Your task to perform on an android device: check android version Image 0: 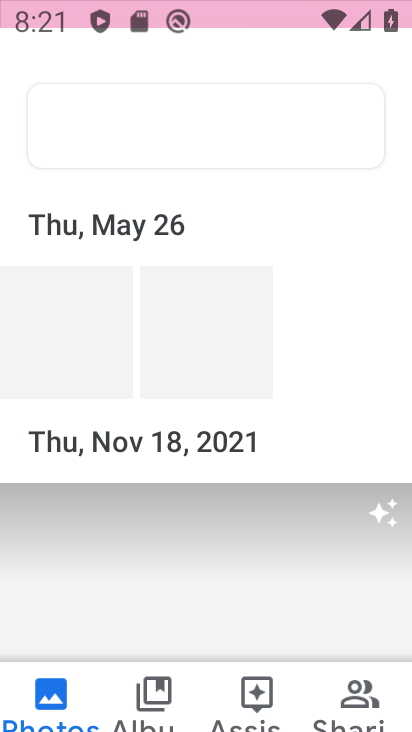
Step 0: press home button
Your task to perform on an android device: check android version Image 1: 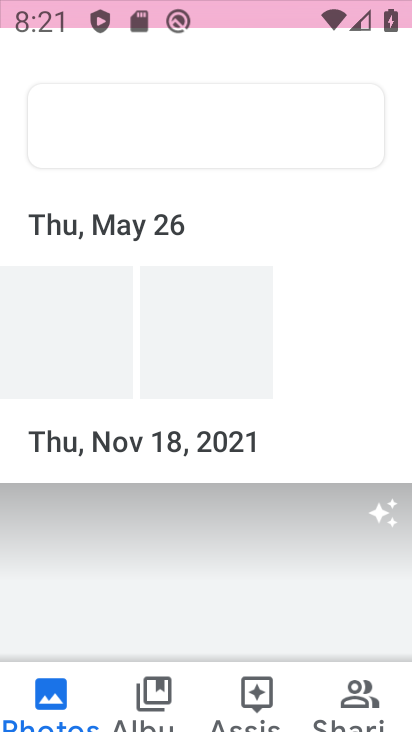
Step 1: click (225, 44)
Your task to perform on an android device: check android version Image 2: 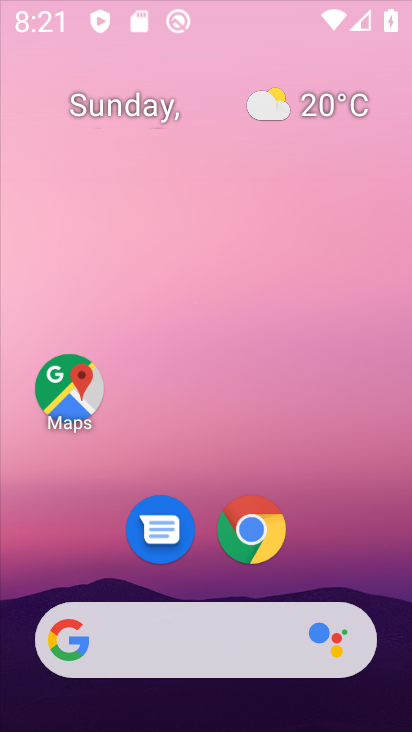
Step 2: press home button
Your task to perform on an android device: check android version Image 3: 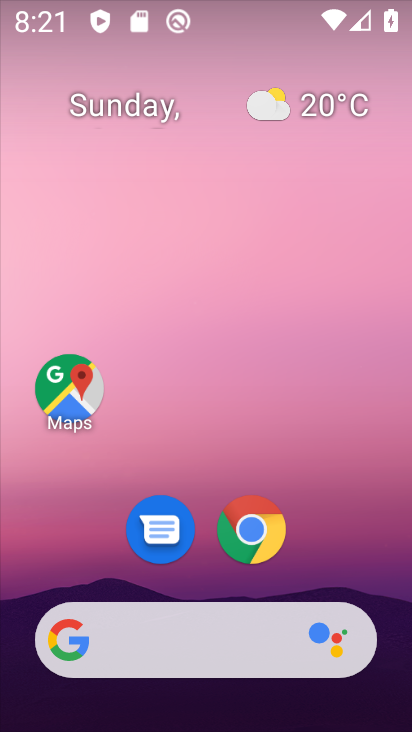
Step 3: drag from (202, 565) to (213, 10)
Your task to perform on an android device: check android version Image 4: 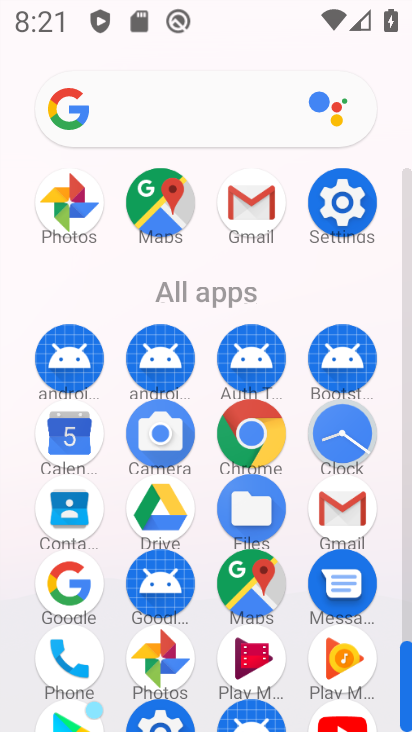
Step 4: click (341, 199)
Your task to perform on an android device: check android version Image 5: 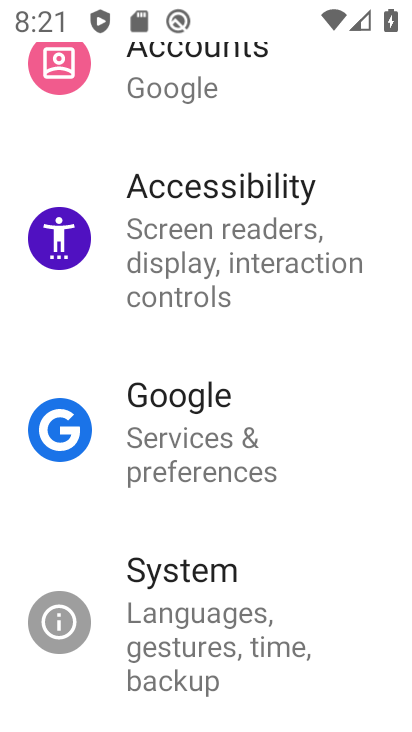
Step 5: drag from (214, 250) to (214, 40)
Your task to perform on an android device: check android version Image 6: 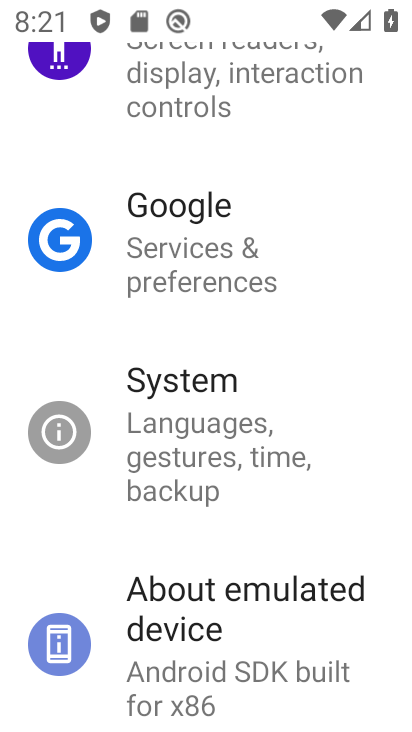
Step 6: drag from (232, 202) to (227, 88)
Your task to perform on an android device: check android version Image 7: 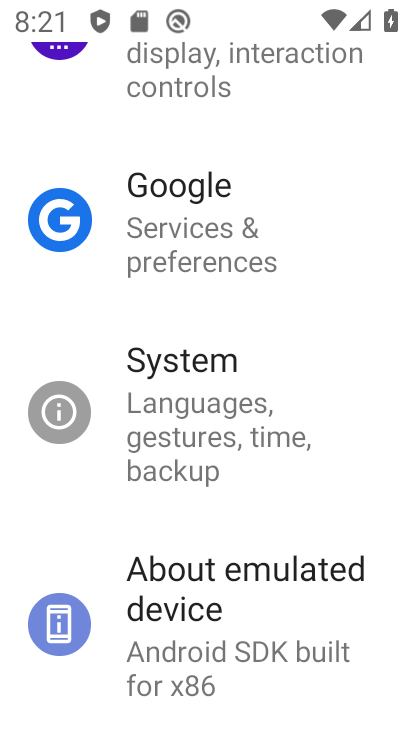
Step 7: click (244, 615)
Your task to perform on an android device: check android version Image 8: 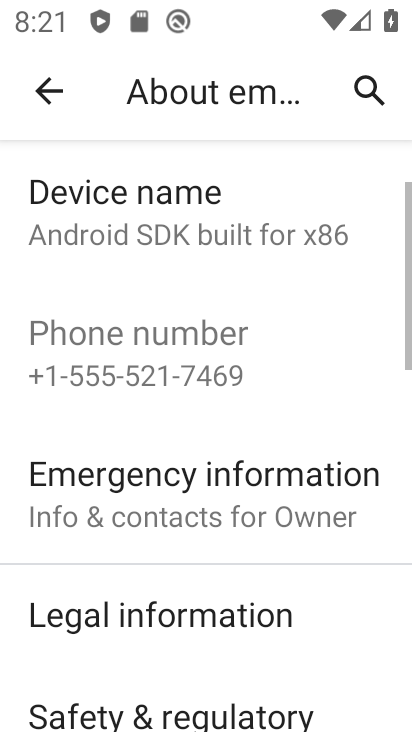
Step 8: drag from (188, 676) to (166, 68)
Your task to perform on an android device: check android version Image 9: 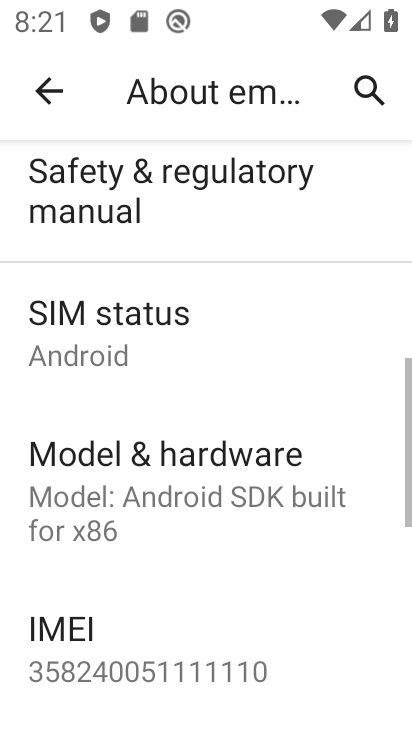
Step 9: drag from (198, 639) to (182, 150)
Your task to perform on an android device: check android version Image 10: 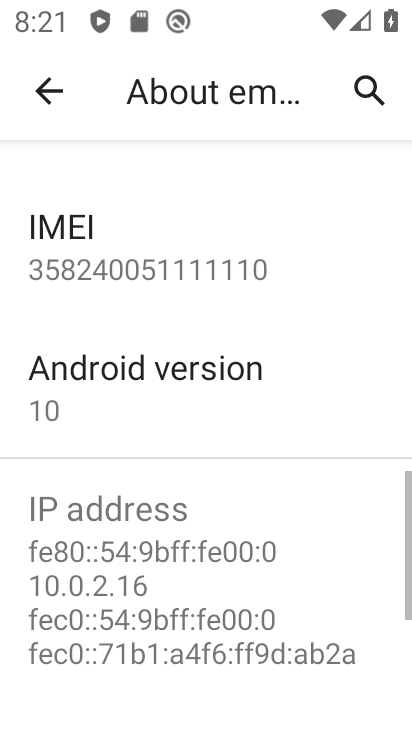
Step 10: click (144, 405)
Your task to perform on an android device: check android version Image 11: 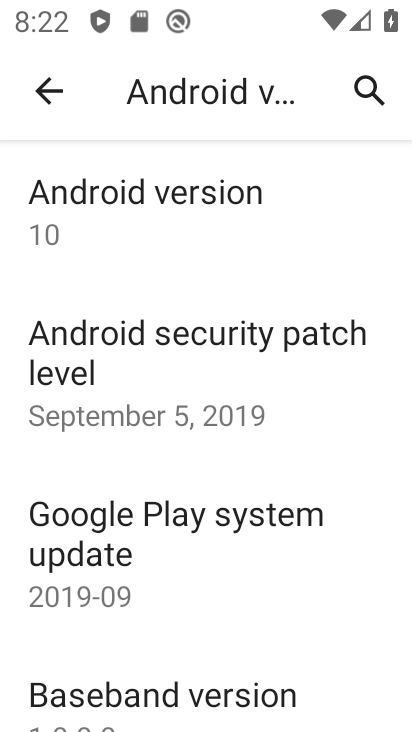
Step 11: task complete